Your task to perform on an android device: Open Youtube and go to the subscriptions tab Image 0: 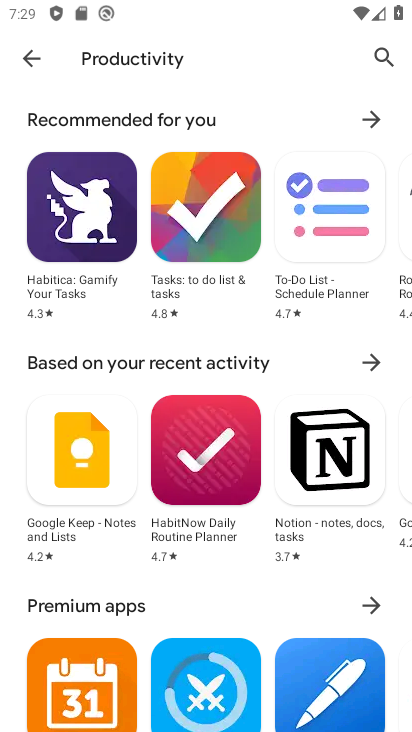
Step 0: press home button
Your task to perform on an android device: Open Youtube and go to the subscriptions tab Image 1: 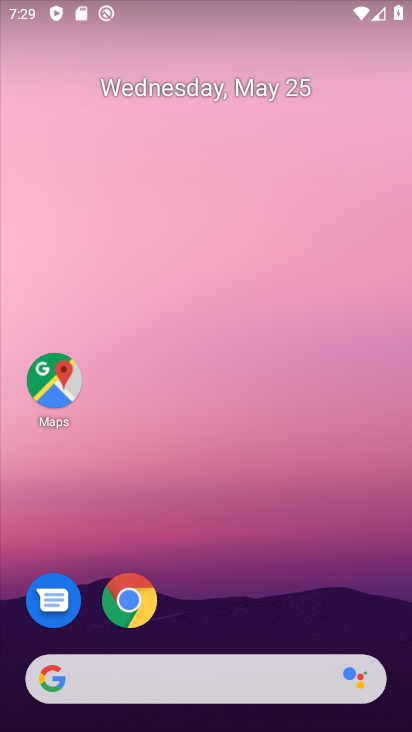
Step 1: drag from (357, 591) to (330, 177)
Your task to perform on an android device: Open Youtube and go to the subscriptions tab Image 2: 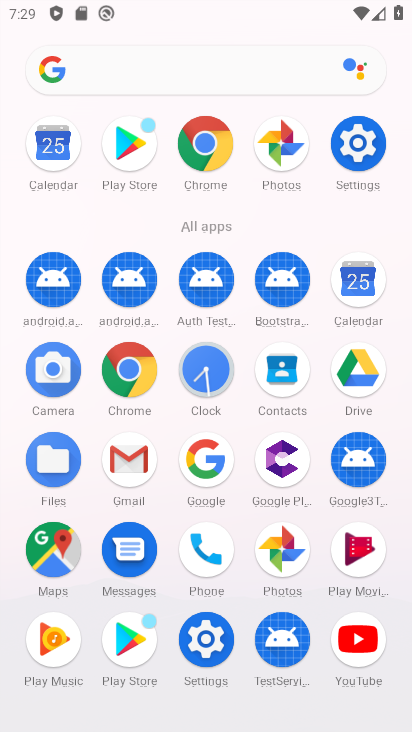
Step 2: click (351, 637)
Your task to perform on an android device: Open Youtube and go to the subscriptions tab Image 3: 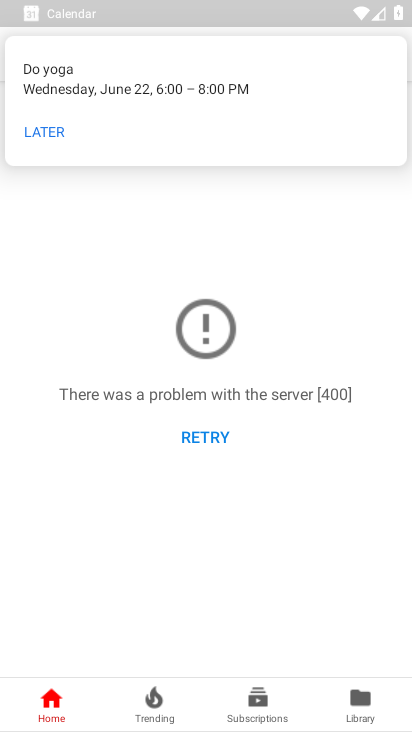
Step 3: click (264, 716)
Your task to perform on an android device: Open Youtube and go to the subscriptions tab Image 4: 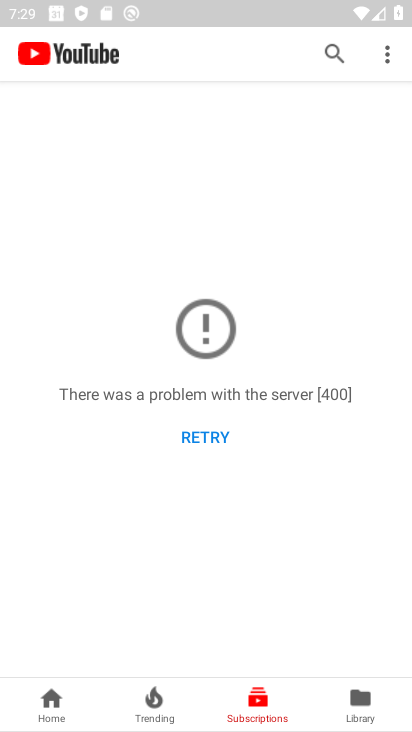
Step 4: task complete